Your task to perform on an android device: delete a single message in the gmail app Image 0: 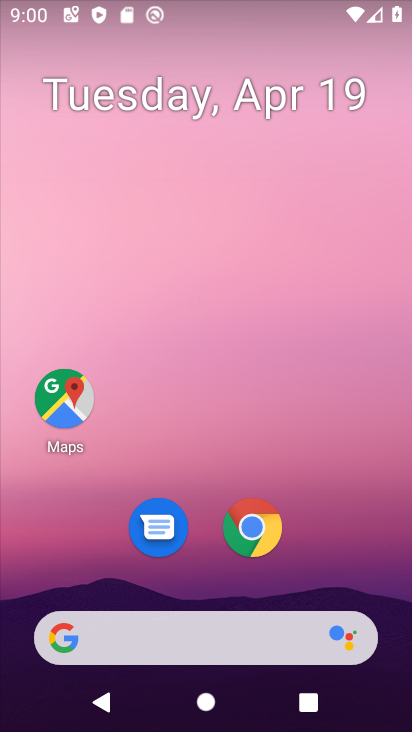
Step 0: drag from (306, 318) to (308, 187)
Your task to perform on an android device: delete a single message in the gmail app Image 1: 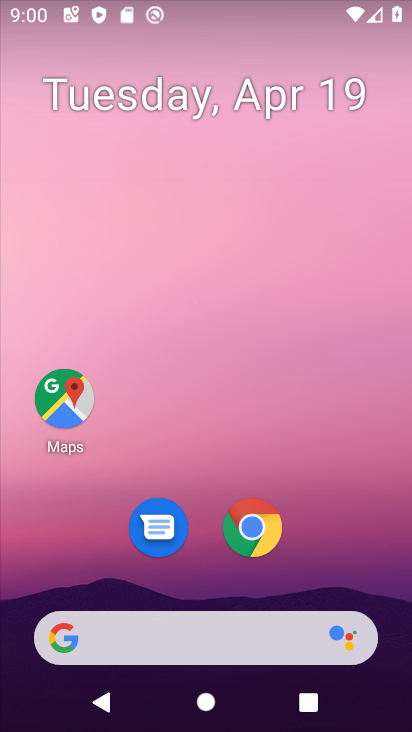
Step 1: click (283, 37)
Your task to perform on an android device: delete a single message in the gmail app Image 2: 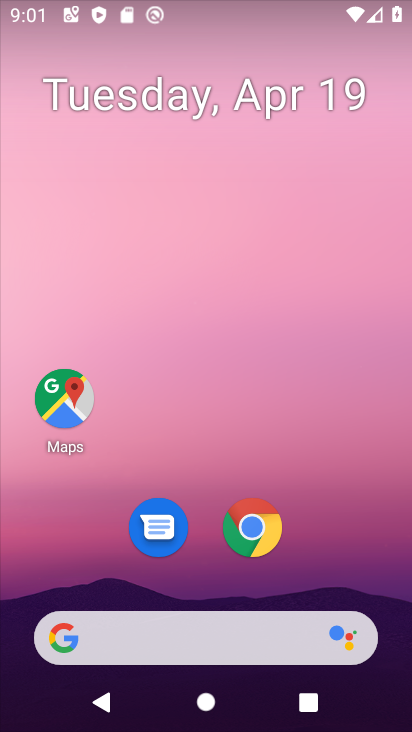
Step 2: drag from (314, 493) to (276, 134)
Your task to perform on an android device: delete a single message in the gmail app Image 3: 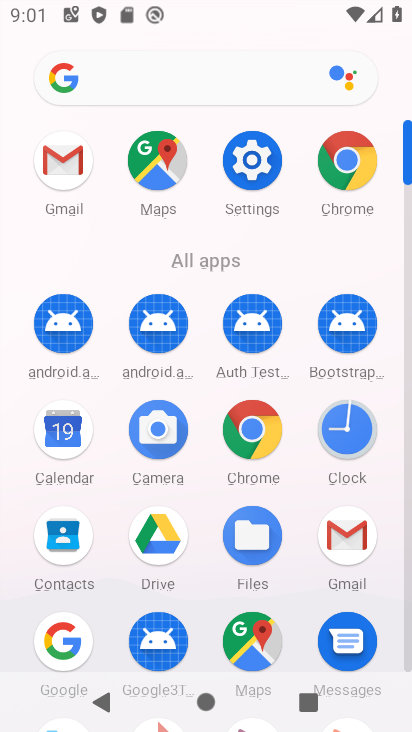
Step 3: click (50, 150)
Your task to perform on an android device: delete a single message in the gmail app Image 4: 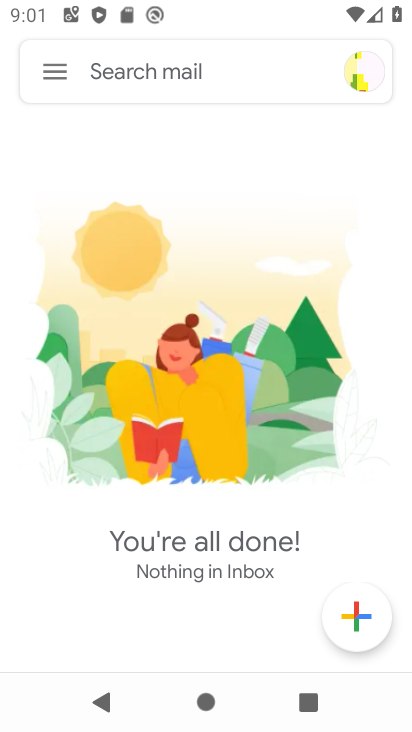
Step 4: click (51, 64)
Your task to perform on an android device: delete a single message in the gmail app Image 5: 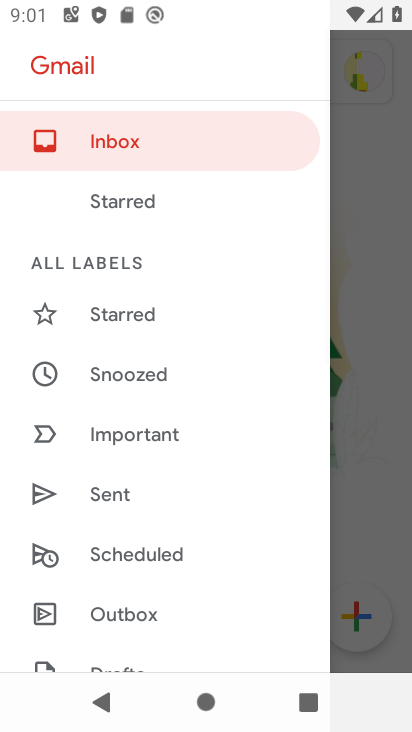
Step 5: drag from (157, 550) to (170, 230)
Your task to perform on an android device: delete a single message in the gmail app Image 6: 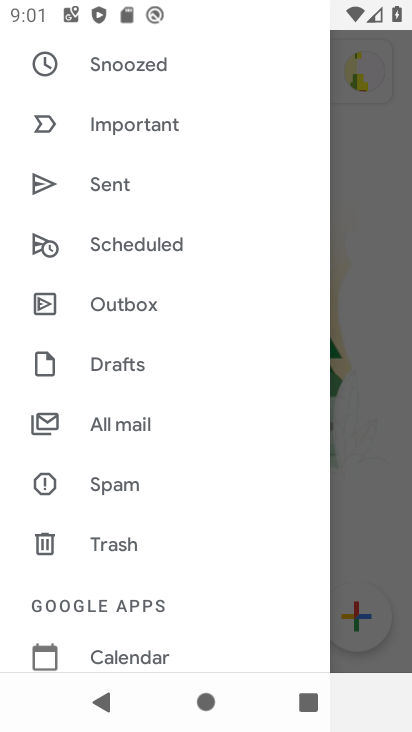
Step 6: click (161, 428)
Your task to perform on an android device: delete a single message in the gmail app Image 7: 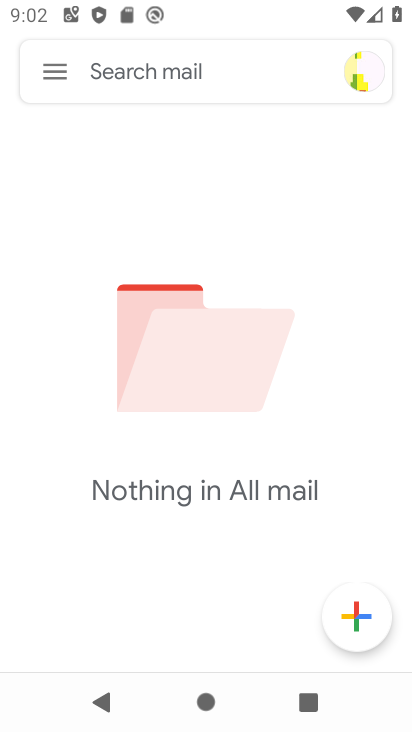
Step 7: task complete